Your task to perform on an android device: toggle show notifications on the lock screen Image 0: 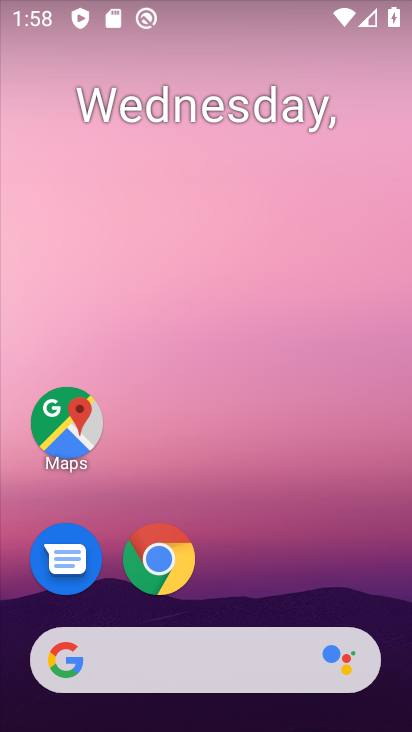
Step 0: drag from (171, 605) to (200, 0)
Your task to perform on an android device: toggle show notifications on the lock screen Image 1: 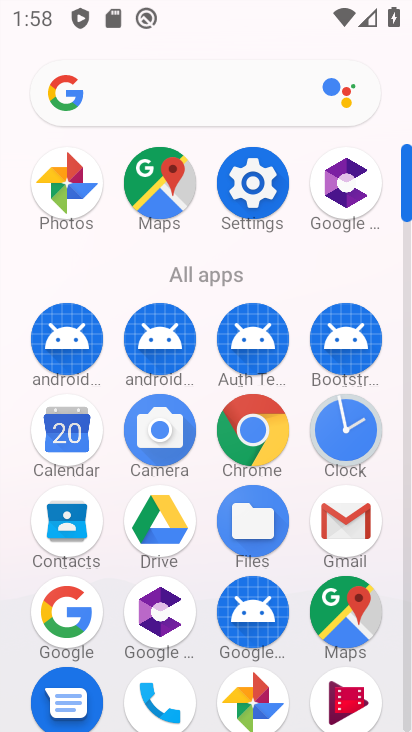
Step 1: click (246, 177)
Your task to perform on an android device: toggle show notifications on the lock screen Image 2: 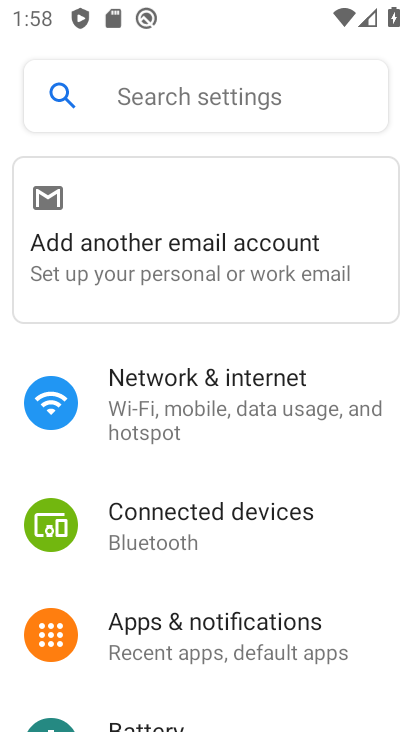
Step 2: click (215, 632)
Your task to perform on an android device: toggle show notifications on the lock screen Image 3: 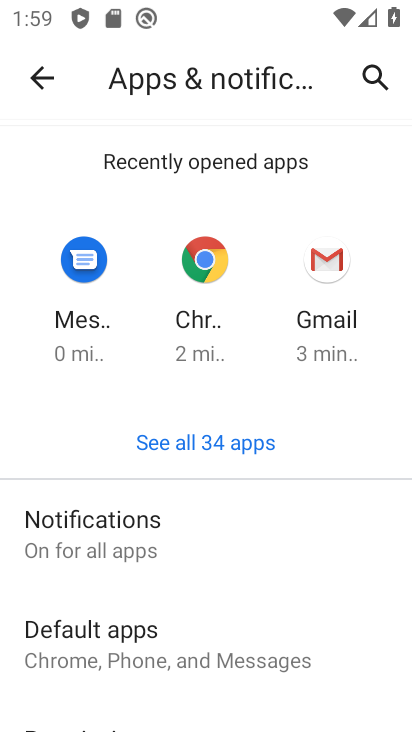
Step 3: click (189, 551)
Your task to perform on an android device: toggle show notifications on the lock screen Image 4: 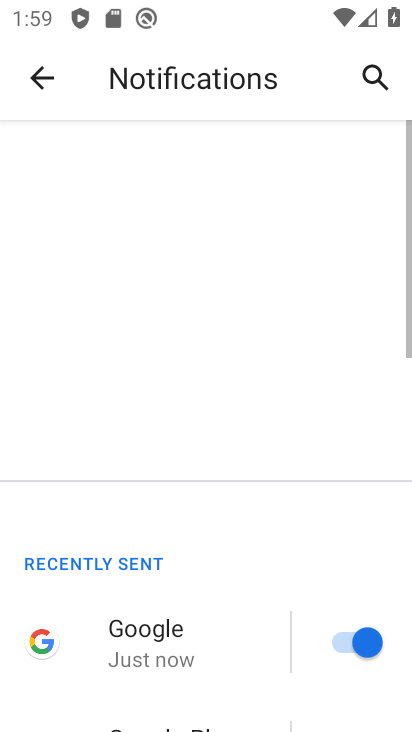
Step 4: drag from (145, 647) to (212, 50)
Your task to perform on an android device: toggle show notifications on the lock screen Image 5: 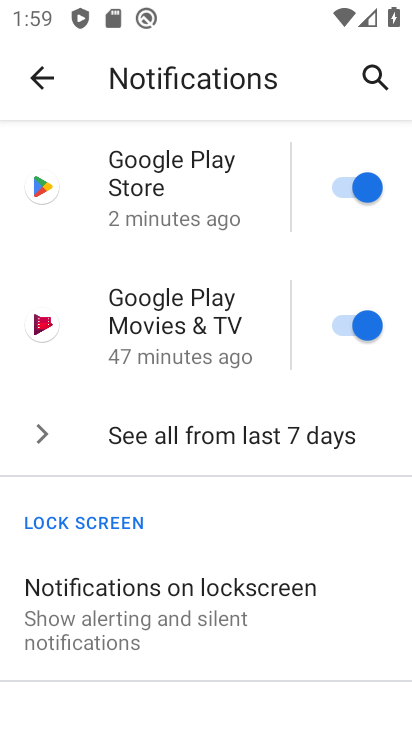
Step 5: click (152, 621)
Your task to perform on an android device: toggle show notifications on the lock screen Image 6: 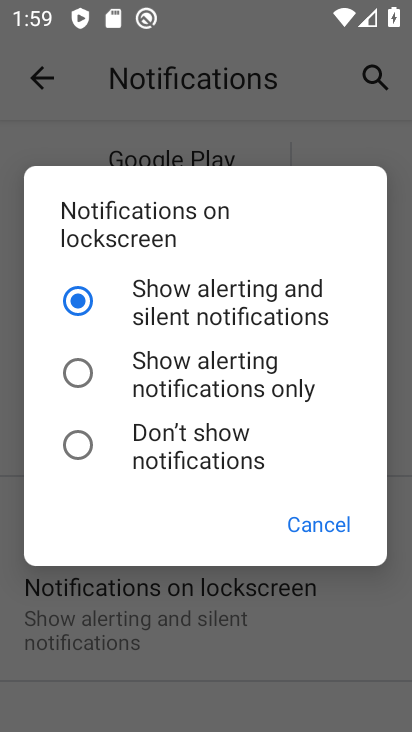
Step 6: click (98, 290)
Your task to perform on an android device: toggle show notifications on the lock screen Image 7: 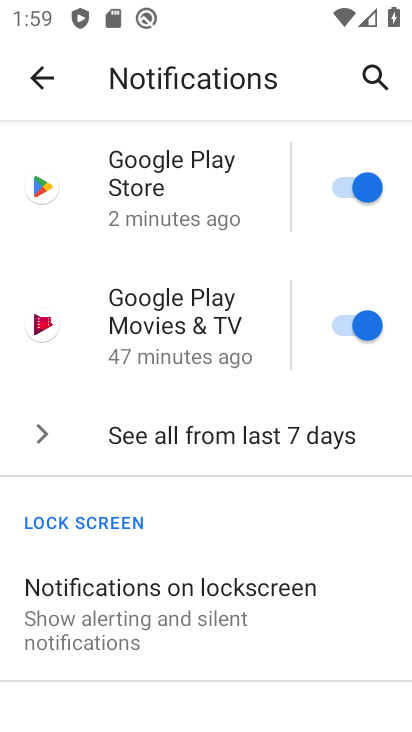
Step 7: task complete